Your task to perform on an android device: turn on location history Image 0: 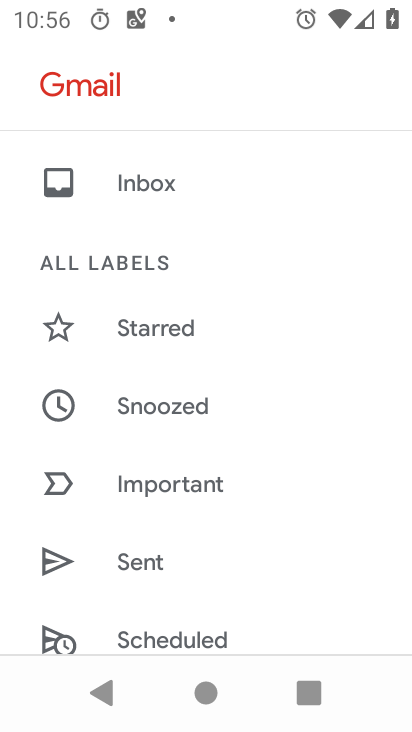
Step 0: press home button
Your task to perform on an android device: turn on location history Image 1: 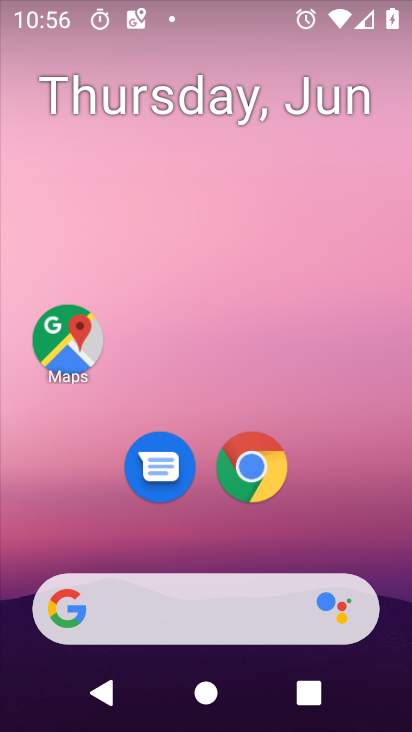
Step 1: drag from (30, 512) to (306, 121)
Your task to perform on an android device: turn on location history Image 2: 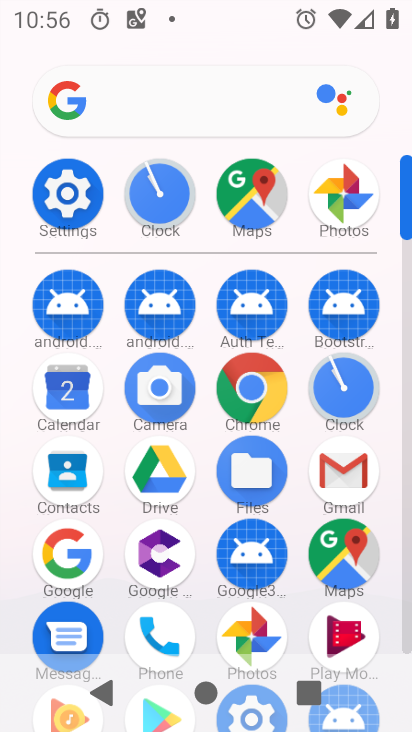
Step 2: click (43, 185)
Your task to perform on an android device: turn on location history Image 3: 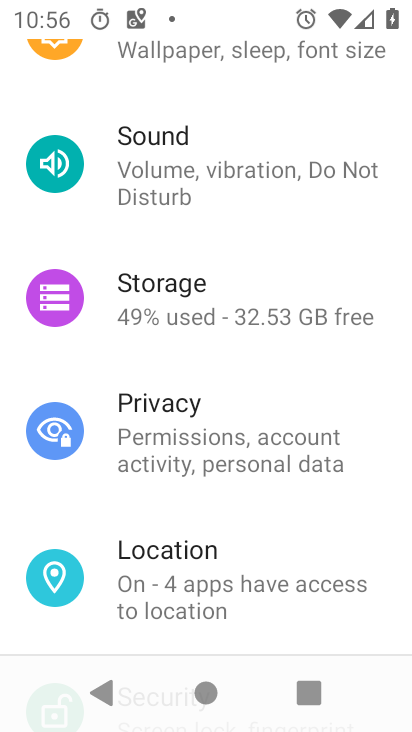
Step 3: click (144, 569)
Your task to perform on an android device: turn on location history Image 4: 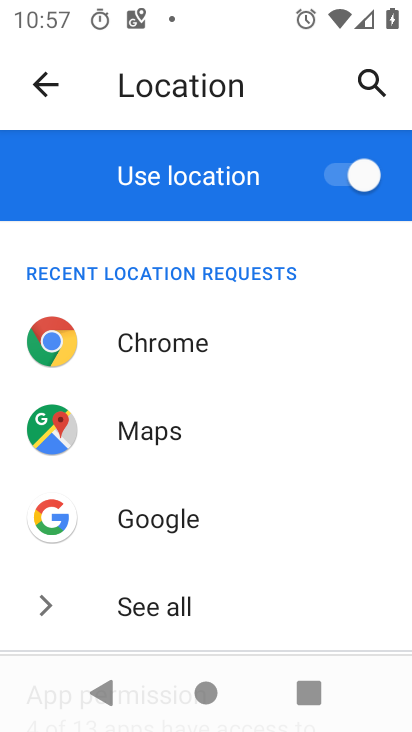
Step 4: drag from (48, 598) to (305, 283)
Your task to perform on an android device: turn on location history Image 5: 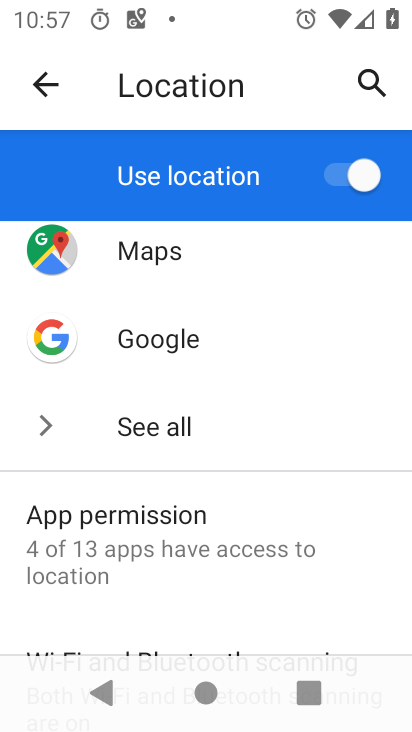
Step 5: drag from (5, 592) to (244, 219)
Your task to perform on an android device: turn on location history Image 6: 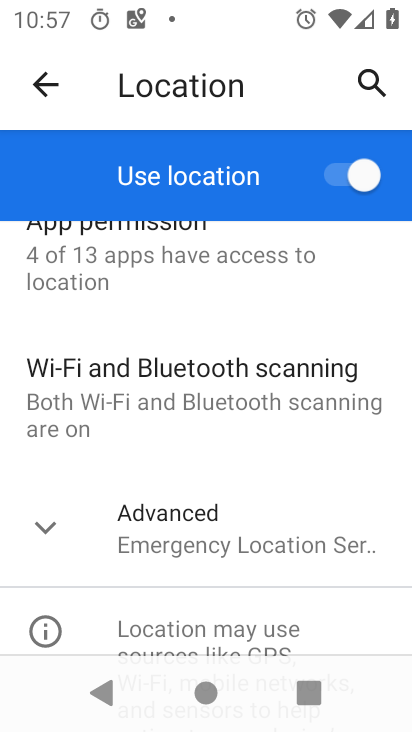
Step 6: click (216, 527)
Your task to perform on an android device: turn on location history Image 7: 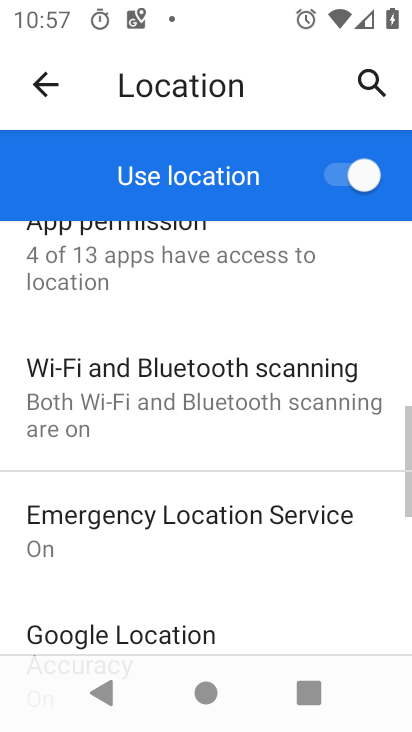
Step 7: drag from (28, 559) to (284, 177)
Your task to perform on an android device: turn on location history Image 8: 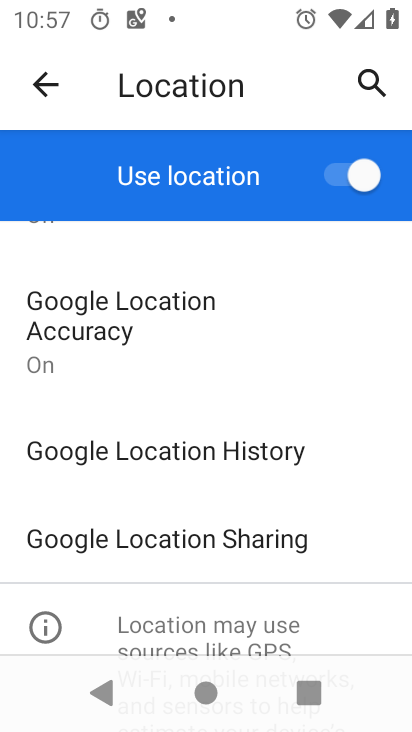
Step 8: click (204, 452)
Your task to perform on an android device: turn on location history Image 9: 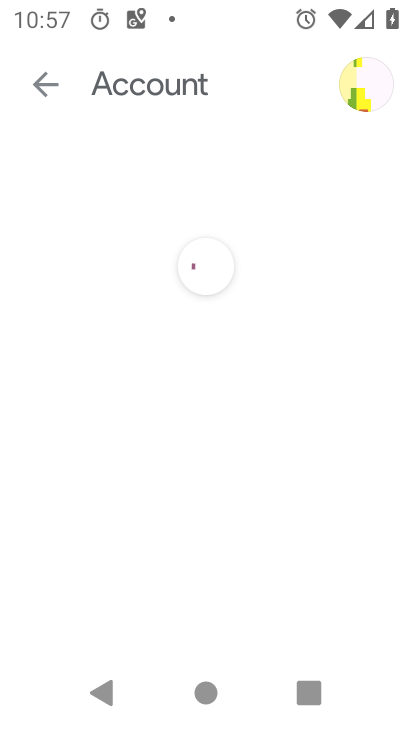
Step 9: task complete